Your task to perform on an android device: toggle sleep mode Image 0: 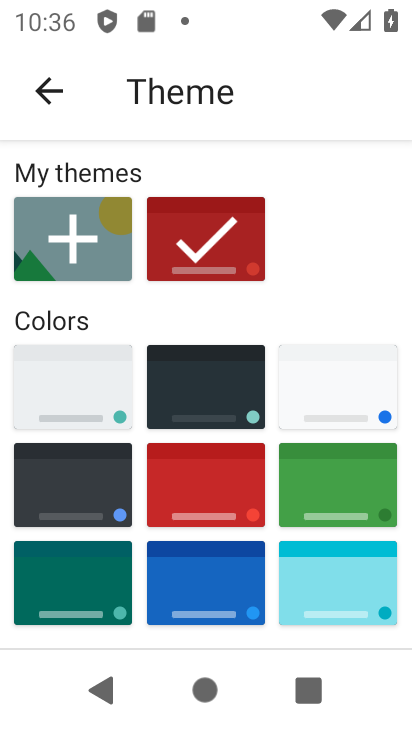
Step 0: press home button
Your task to perform on an android device: toggle sleep mode Image 1: 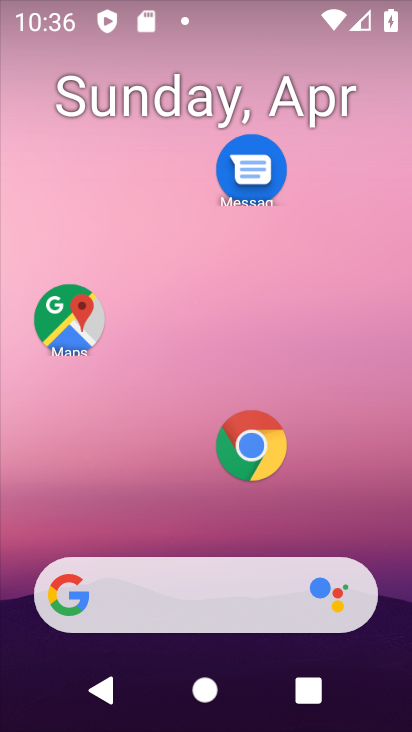
Step 1: drag from (199, 554) to (312, 74)
Your task to perform on an android device: toggle sleep mode Image 2: 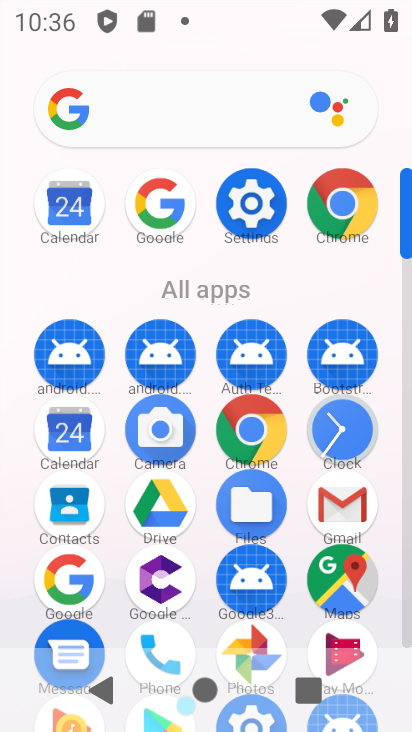
Step 2: click (251, 219)
Your task to perform on an android device: toggle sleep mode Image 3: 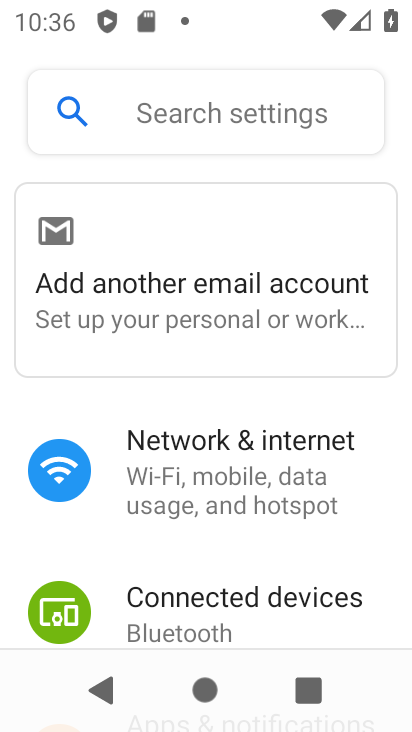
Step 3: drag from (198, 569) to (303, 226)
Your task to perform on an android device: toggle sleep mode Image 4: 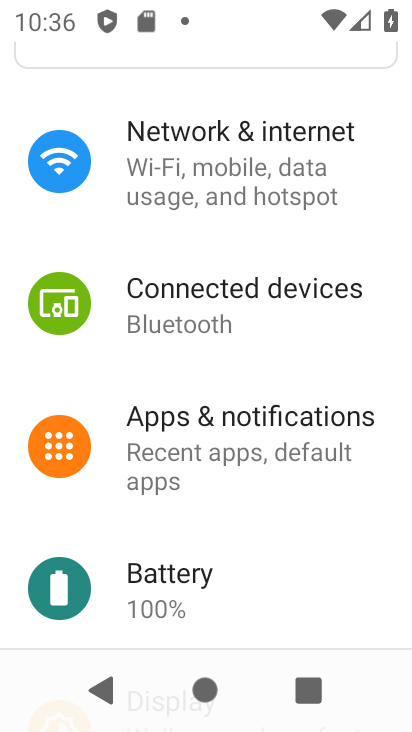
Step 4: drag from (229, 565) to (399, 65)
Your task to perform on an android device: toggle sleep mode Image 5: 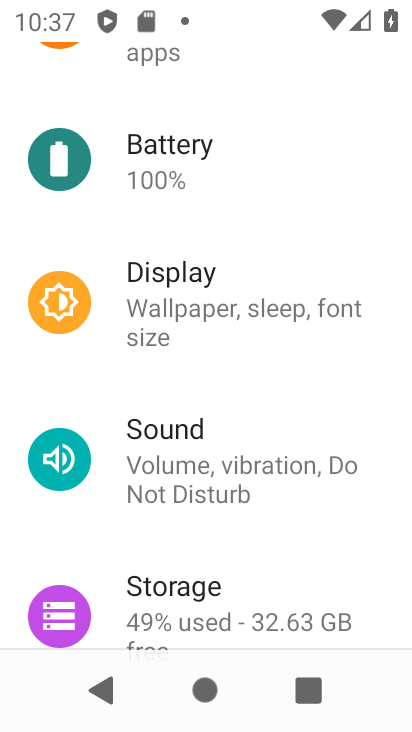
Step 5: click (219, 304)
Your task to perform on an android device: toggle sleep mode Image 6: 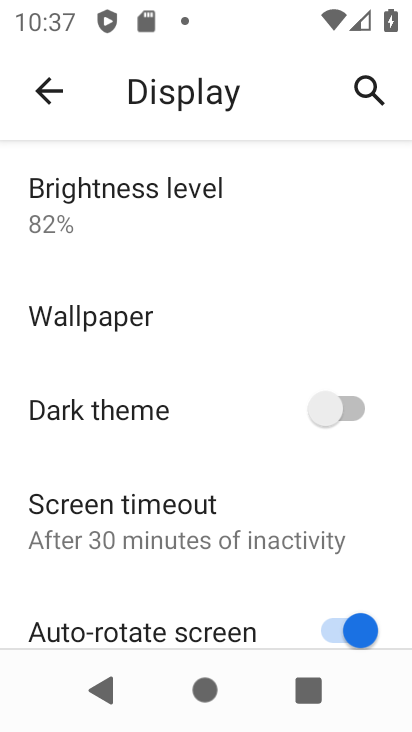
Step 6: task complete